Your task to perform on an android device: allow notifications from all sites in the chrome app Image 0: 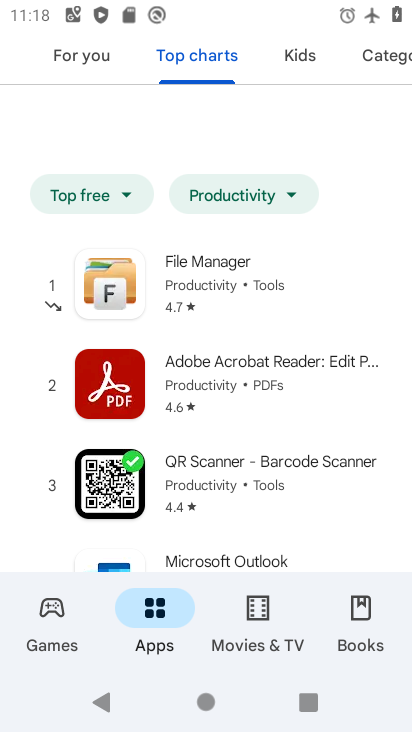
Step 0: press home button
Your task to perform on an android device: allow notifications from all sites in the chrome app Image 1: 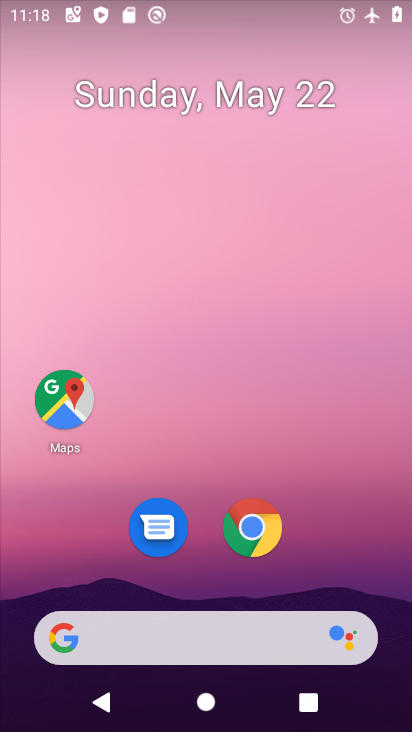
Step 1: click (272, 546)
Your task to perform on an android device: allow notifications from all sites in the chrome app Image 2: 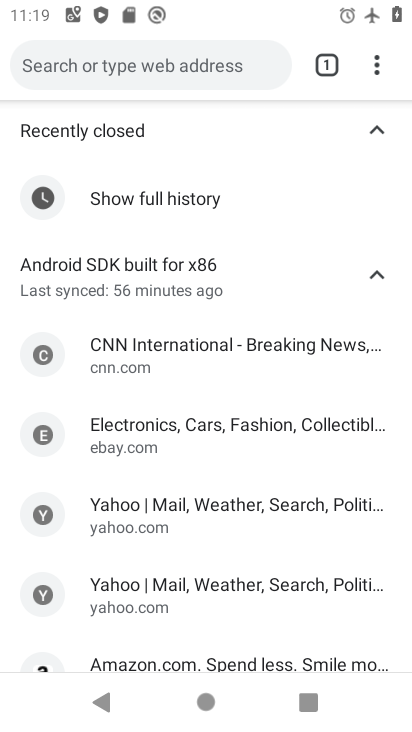
Step 2: task complete